Your task to perform on an android device: open a bookmark in the chrome app Image 0: 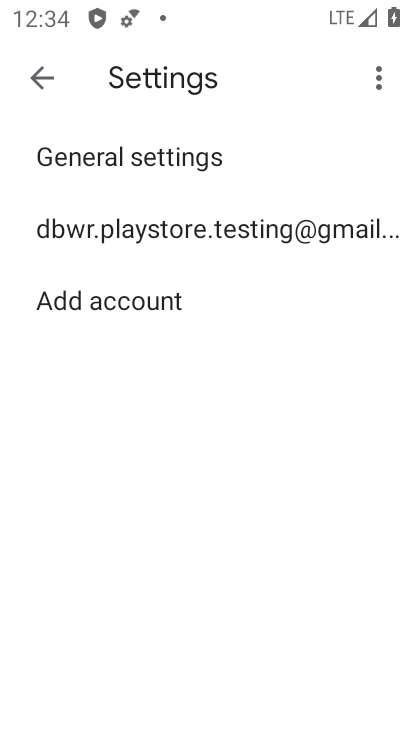
Step 0: press home button
Your task to perform on an android device: open a bookmark in the chrome app Image 1: 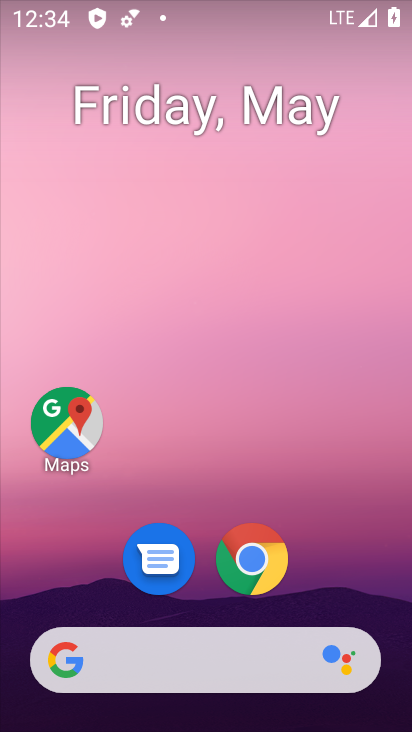
Step 1: click (261, 557)
Your task to perform on an android device: open a bookmark in the chrome app Image 2: 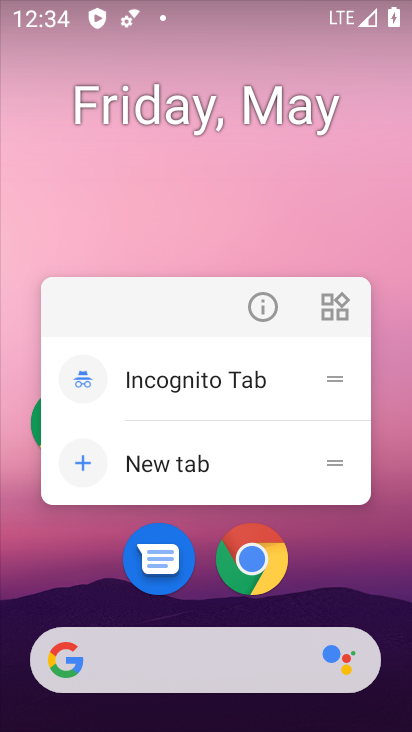
Step 2: click (259, 559)
Your task to perform on an android device: open a bookmark in the chrome app Image 3: 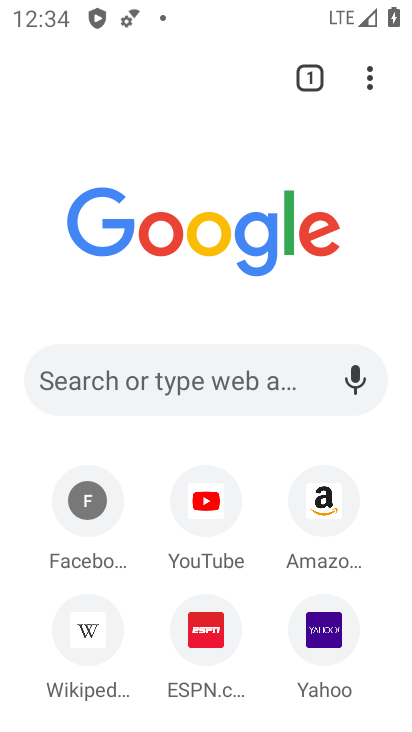
Step 3: task complete